Your task to perform on an android device: turn off notifications in google photos Image 0: 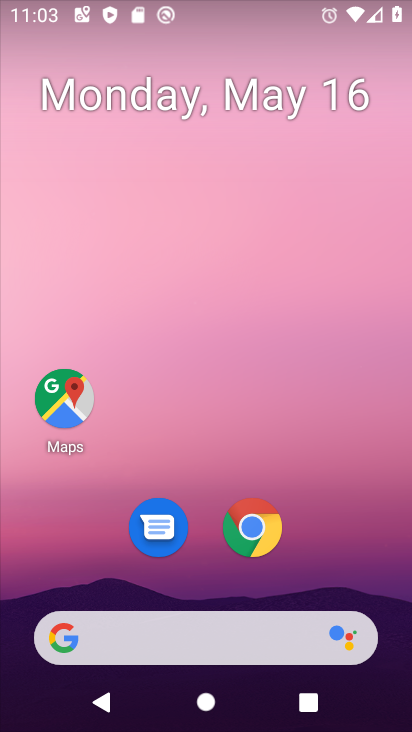
Step 0: drag from (330, 520) to (320, 0)
Your task to perform on an android device: turn off notifications in google photos Image 1: 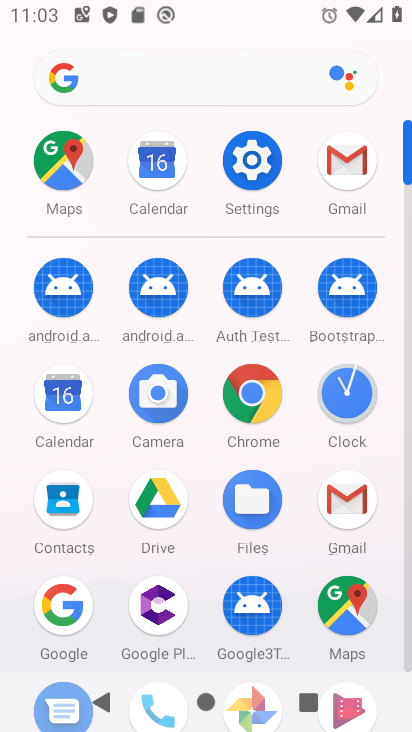
Step 1: click (405, 475)
Your task to perform on an android device: turn off notifications in google photos Image 2: 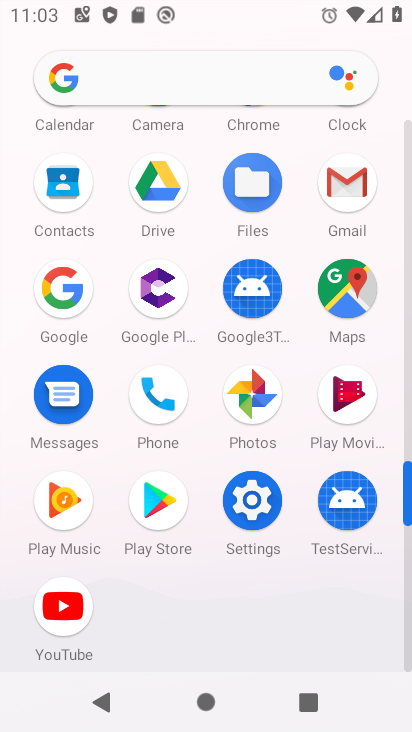
Step 2: click (246, 386)
Your task to perform on an android device: turn off notifications in google photos Image 3: 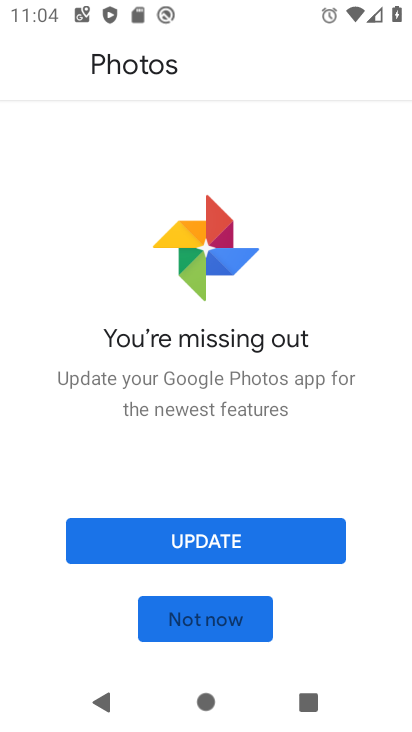
Step 3: click (203, 629)
Your task to perform on an android device: turn off notifications in google photos Image 4: 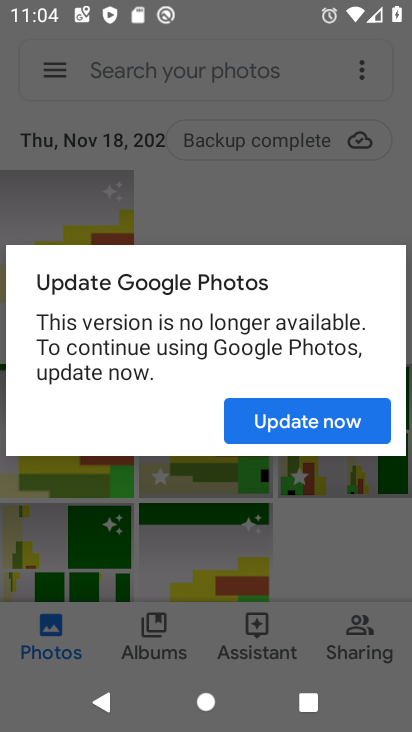
Step 4: click (267, 412)
Your task to perform on an android device: turn off notifications in google photos Image 5: 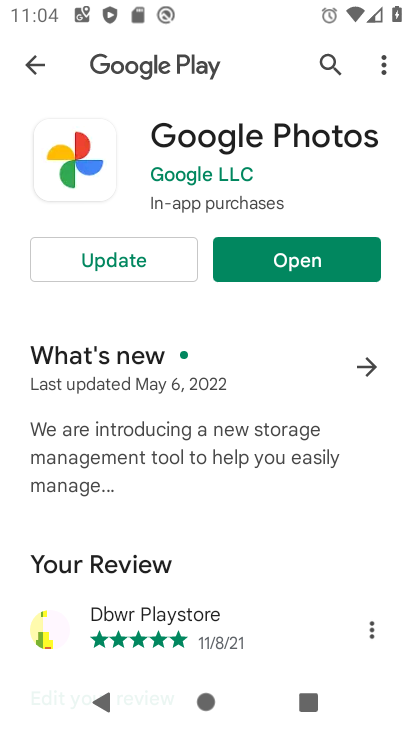
Step 5: click (265, 267)
Your task to perform on an android device: turn off notifications in google photos Image 6: 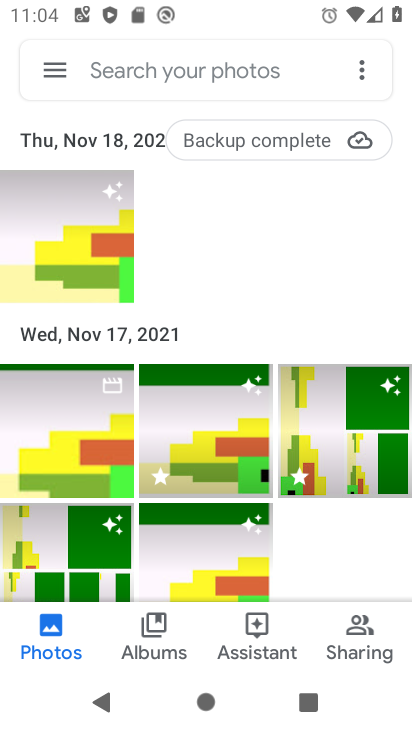
Step 6: click (58, 69)
Your task to perform on an android device: turn off notifications in google photos Image 7: 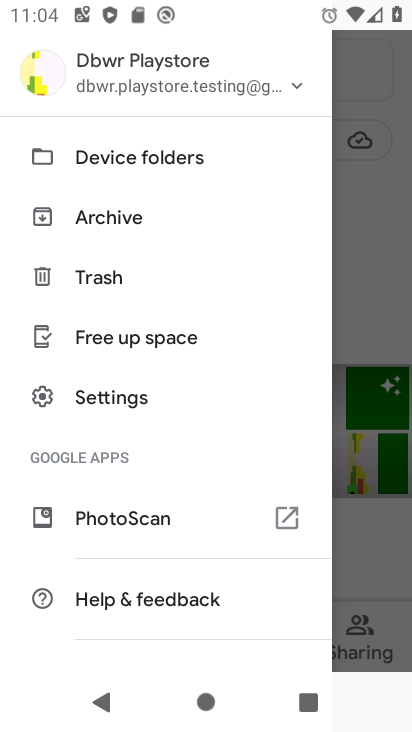
Step 7: click (103, 399)
Your task to perform on an android device: turn off notifications in google photos Image 8: 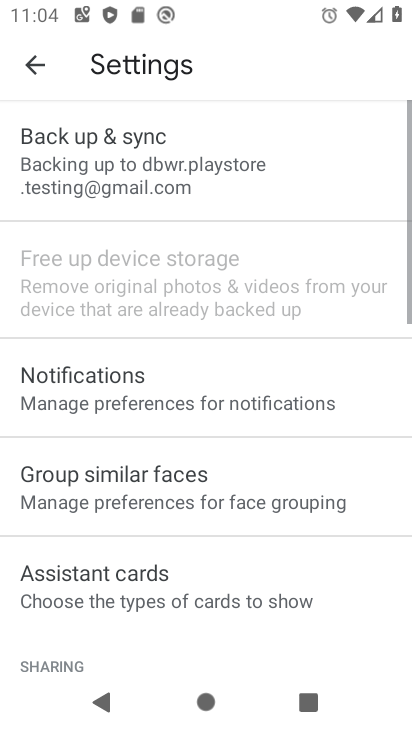
Step 8: click (103, 399)
Your task to perform on an android device: turn off notifications in google photos Image 9: 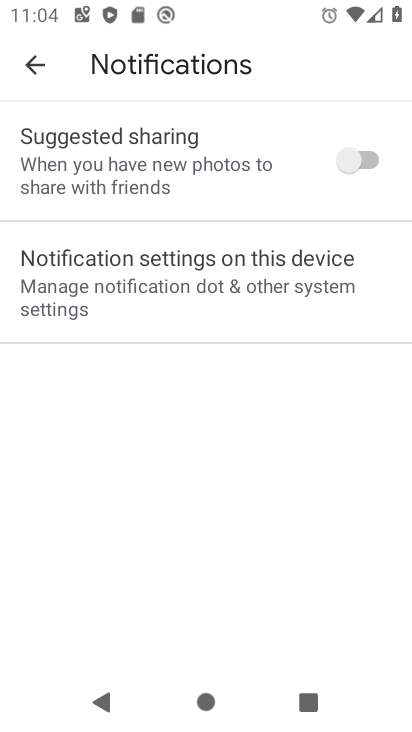
Step 9: click (157, 284)
Your task to perform on an android device: turn off notifications in google photos Image 10: 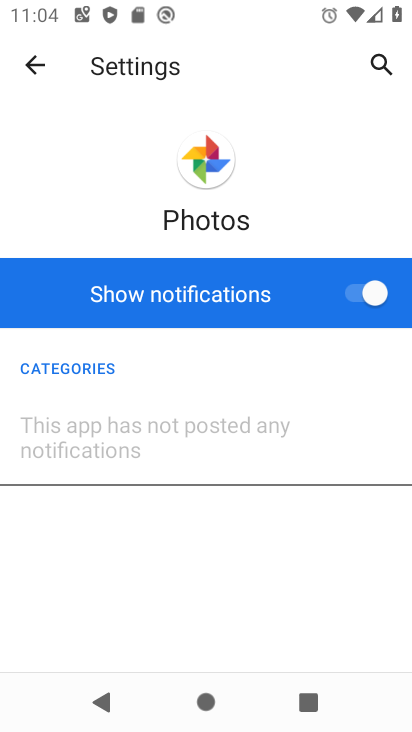
Step 10: click (382, 298)
Your task to perform on an android device: turn off notifications in google photos Image 11: 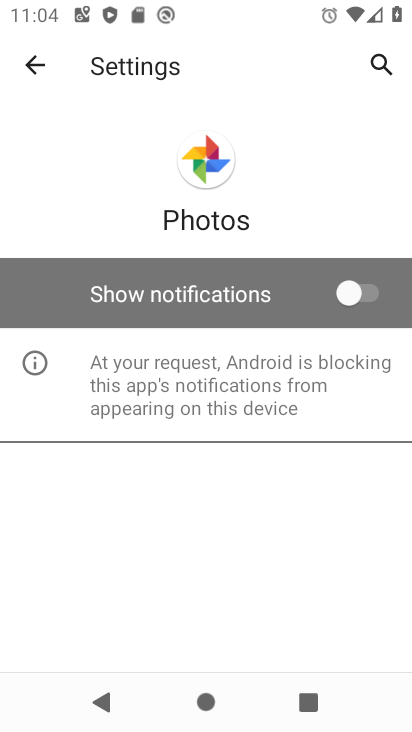
Step 11: task complete